Your task to perform on an android device: delete browsing data in the chrome app Image 0: 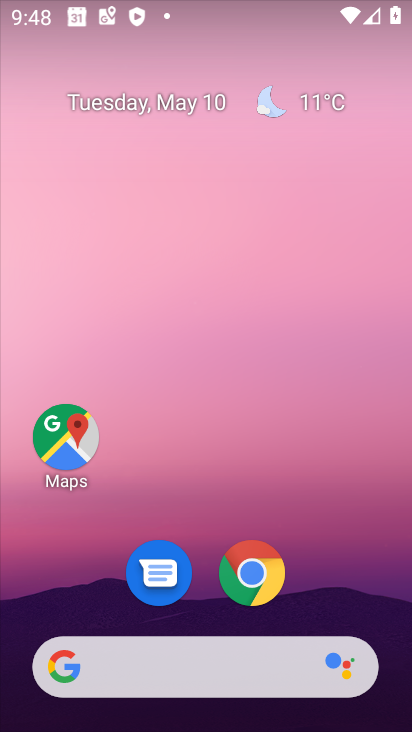
Step 0: click (261, 579)
Your task to perform on an android device: delete browsing data in the chrome app Image 1: 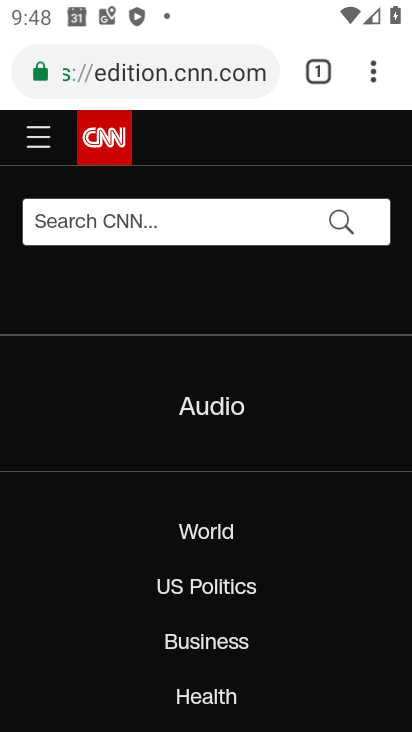
Step 1: drag from (378, 71) to (141, 576)
Your task to perform on an android device: delete browsing data in the chrome app Image 2: 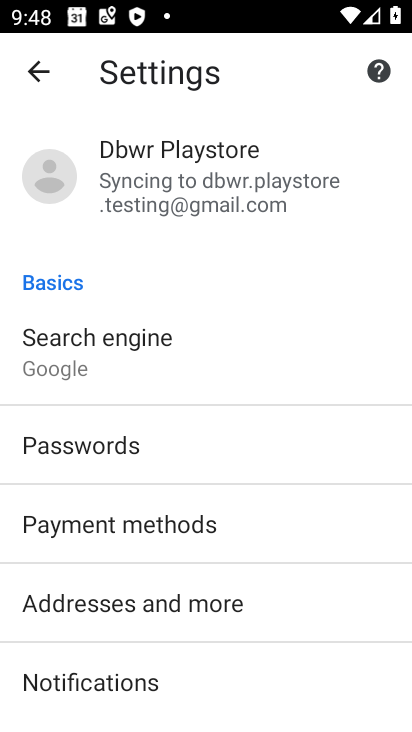
Step 2: drag from (207, 643) to (204, 197)
Your task to perform on an android device: delete browsing data in the chrome app Image 3: 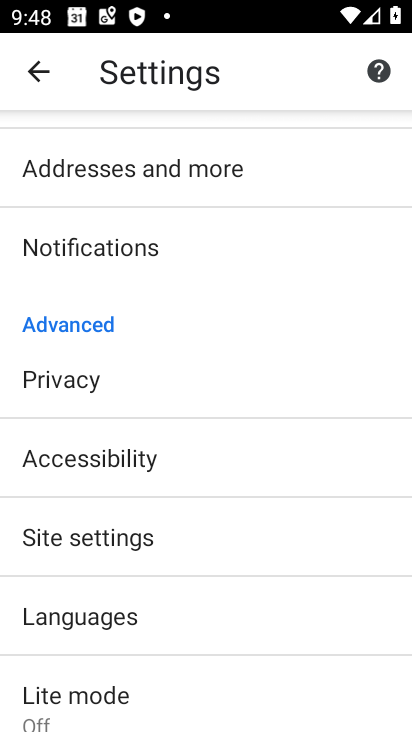
Step 3: drag from (136, 612) to (152, 383)
Your task to perform on an android device: delete browsing data in the chrome app Image 4: 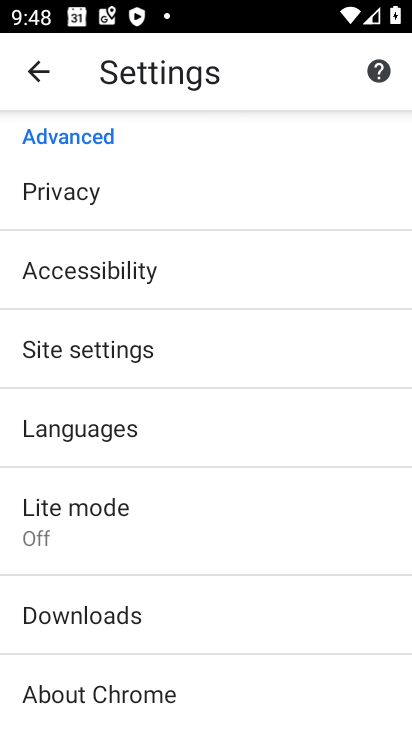
Step 4: click (51, 190)
Your task to perform on an android device: delete browsing data in the chrome app Image 5: 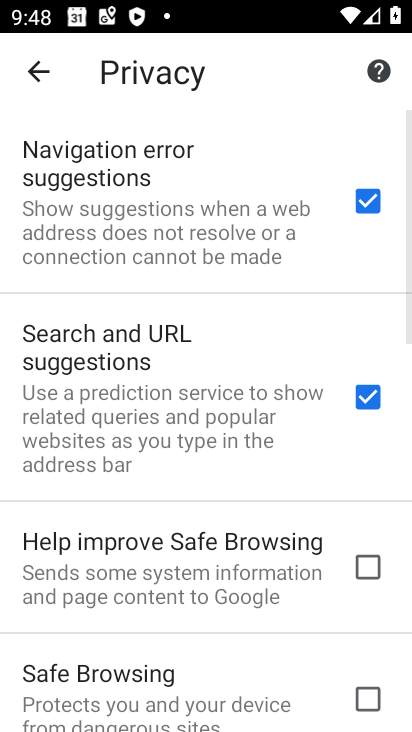
Step 5: drag from (121, 607) to (106, 284)
Your task to perform on an android device: delete browsing data in the chrome app Image 6: 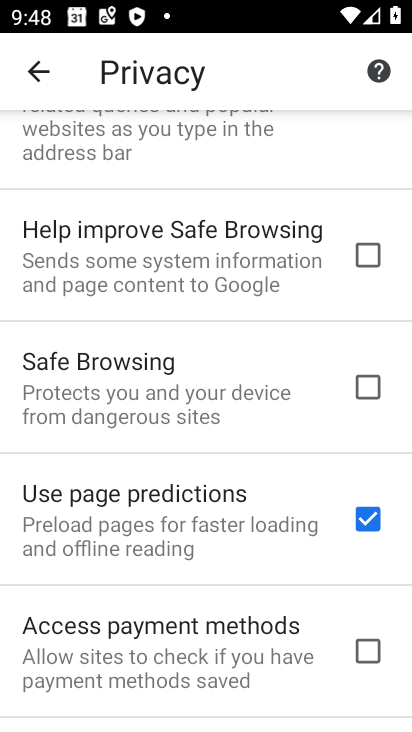
Step 6: drag from (117, 608) to (97, 236)
Your task to perform on an android device: delete browsing data in the chrome app Image 7: 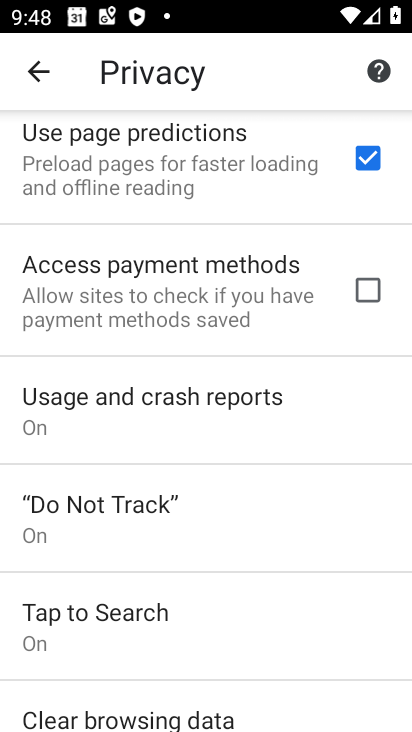
Step 7: drag from (117, 606) to (99, 244)
Your task to perform on an android device: delete browsing data in the chrome app Image 8: 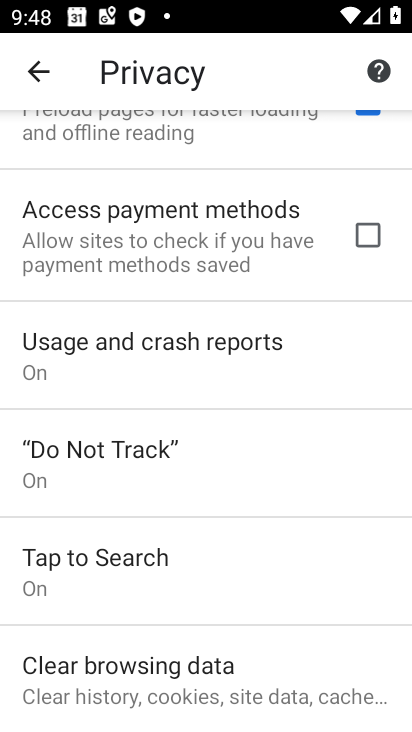
Step 8: click (102, 696)
Your task to perform on an android device: delete browsing data in the chrome app Image 9: 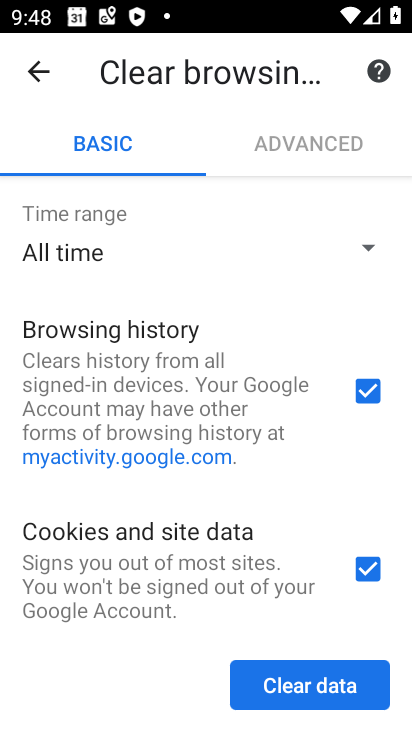
Step 9: click (366, 568)
Your task to perform on an android device: delete browsing data in the chrome app Image 10: 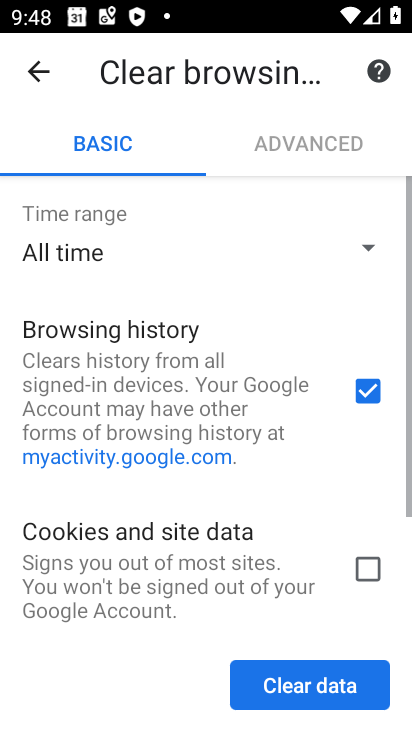
Step 10: drag from (115, 543) to (122, 265)
Your task to perform on an android device: delete browsing data in the chrome app Image 11: 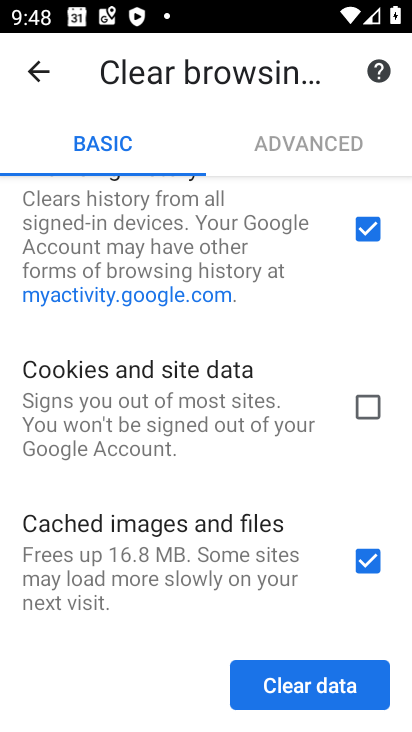
Step 11: click (356, 559)
Your task to perform on an android device: delete browsing data in the chrome app Image 12: 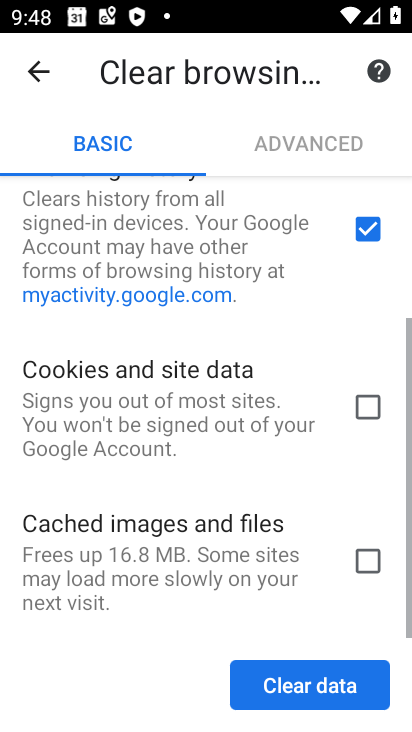
Step 12: click (292, 685)
Your task to perform on an android device: delete browsing data in the chrome app Image 13: 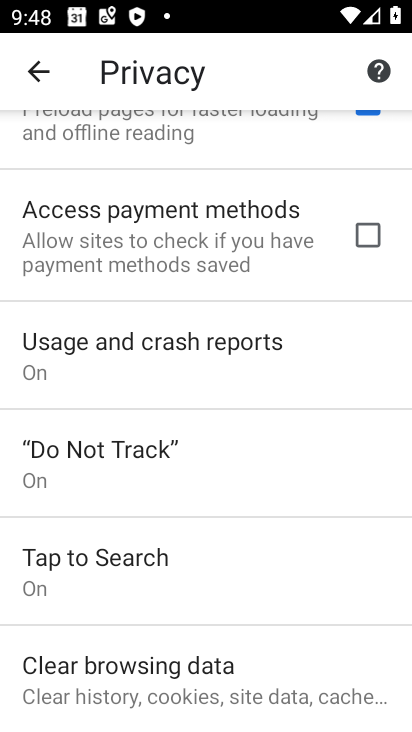
Step 13: task complete